Your task to perform on an android device: check battery use Image 0: 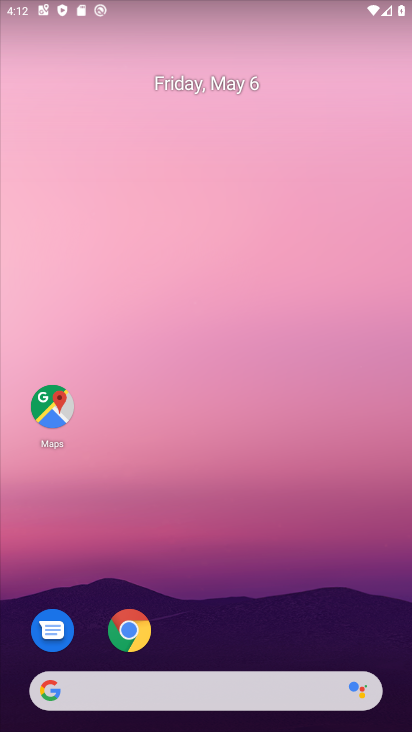
Step 0: drag from (214, 633) to (274, 138)
Your task to perform on an android device: check battery use Image 1: 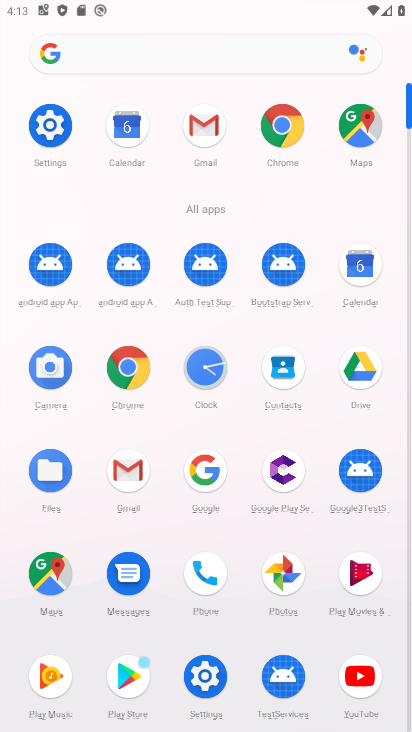
Step 1: click (61, 124)
Your task to perform on an android device: check battery use Image 2: 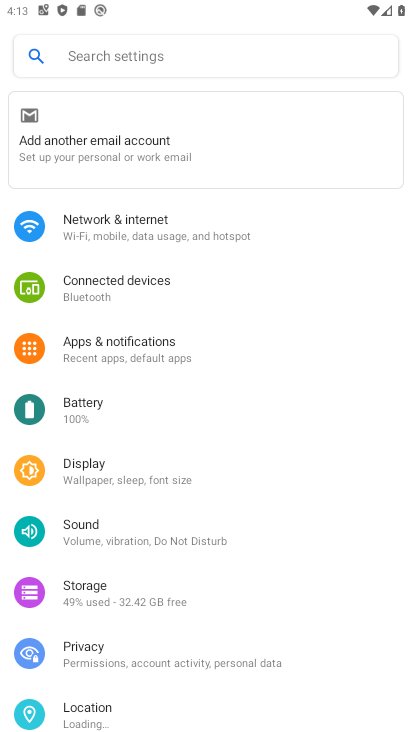
Step 2: click (89, 410)
Your task to perform on an android device: check battery use Image 3: 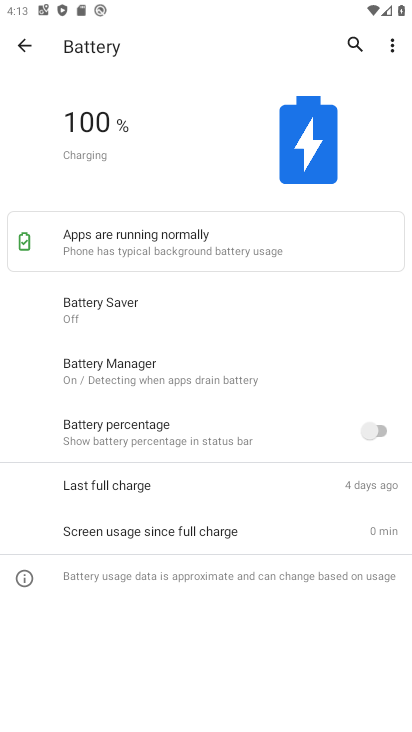
Step 3: click (389, 43)
Your task to perform on an android device: check battery use Image 4: 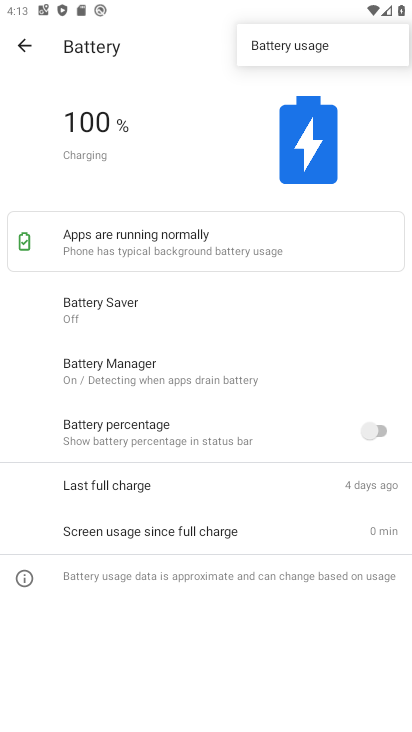
Step 4: click (272, 57)
Your task to perform on an android device: check battery use Image 5: 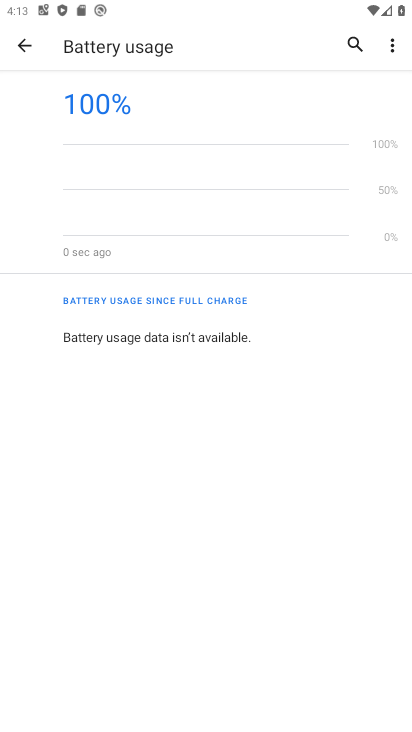
Step 5: task complete